Your task to perform on an android device: turn notification dots on Image 0: 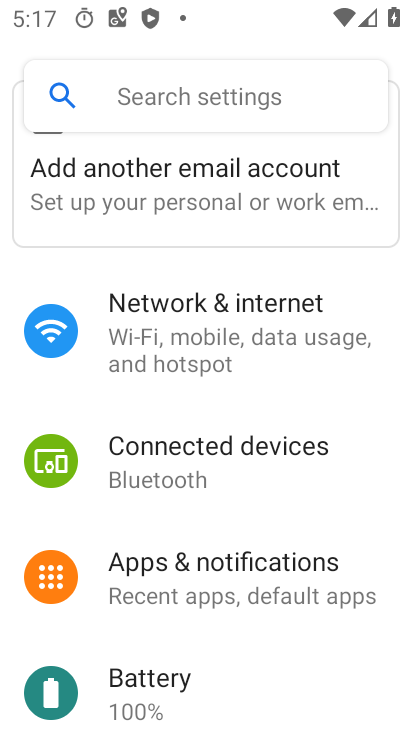
Step 0: click (235, 575)
Your task to perform on an android device: turn notification dots on Image 1: 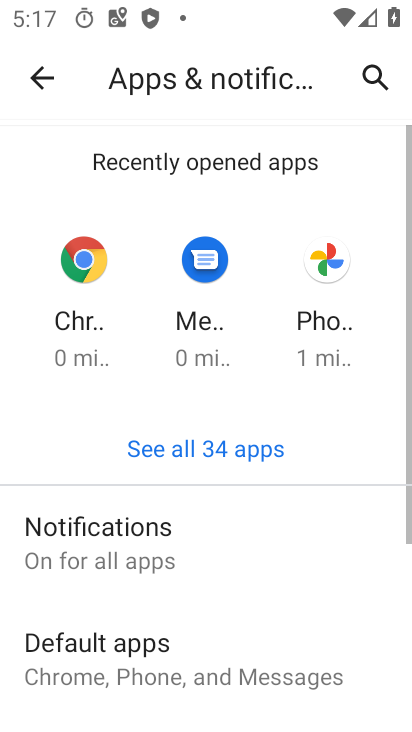
Step 1: click (212, 558)
Your task to perform on an android device: turn notification dots on Image 2: 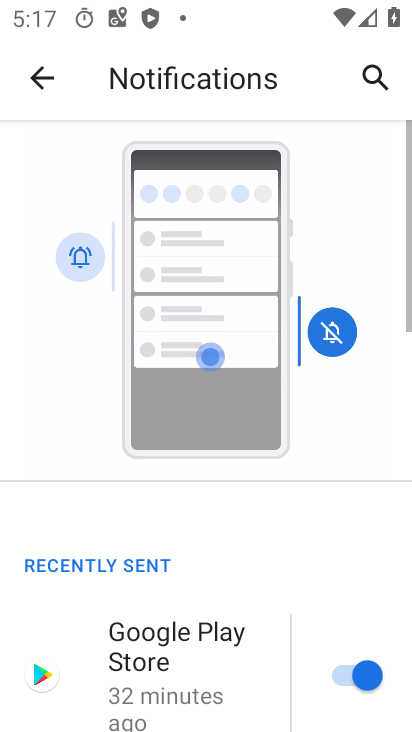
Step 2: drag from (243, 673) to (248, 127)
Your task to perform on an android device: turn notification dots on Image 3: 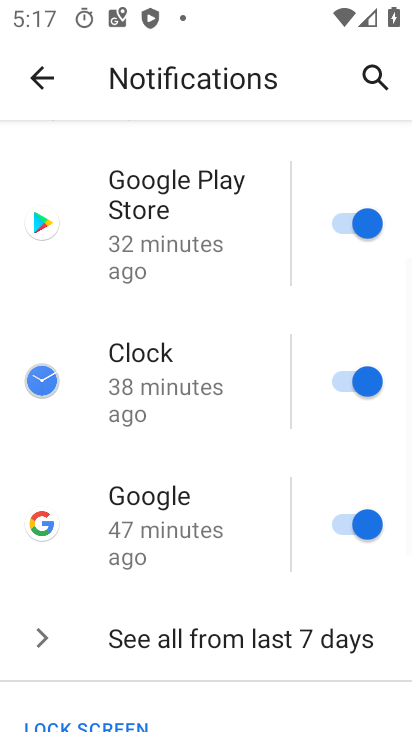
Step 3: drag from (260, 591) to (234, 293)
Your task to perform on an android device: turn notification dots on Image 4: 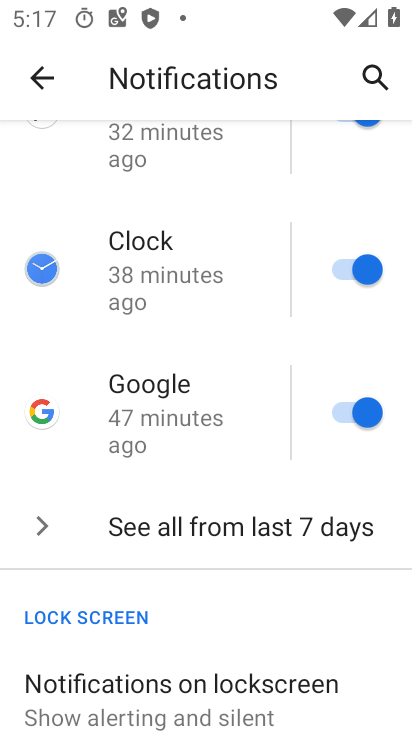
Step 4: drag from (248, 623) to (221, 317)
Your task to perform on an android device: turn notification dots on Image 5: 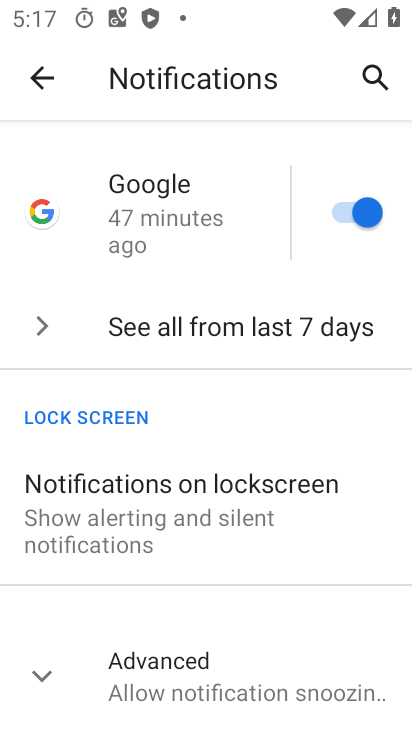
Step 5: click (225, 697)
Your task to perform on an android device: turn notification dots on Image 6: 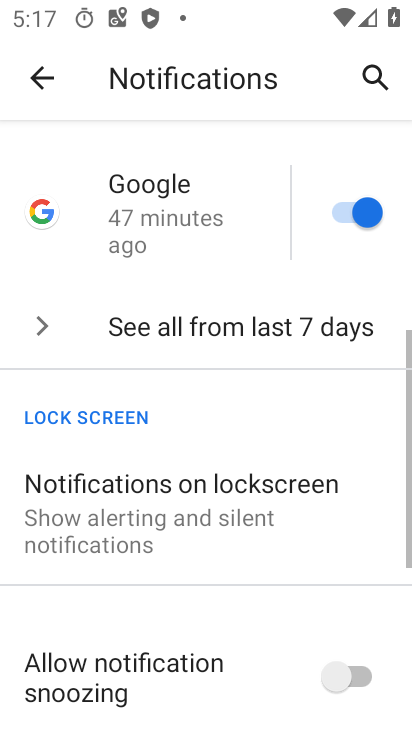
Step 6: task complete